Your task to perform on an android device: install app "Yahoo Mail" Image 0: 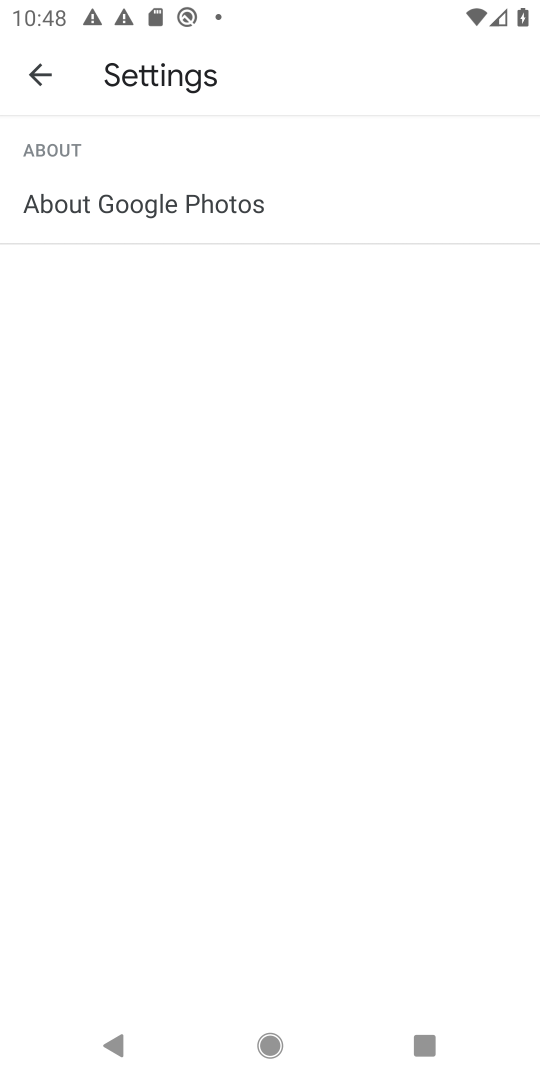
Step 0: press home button
Your task to perform on an android device: install app "Yahoo Mail" Image 1: 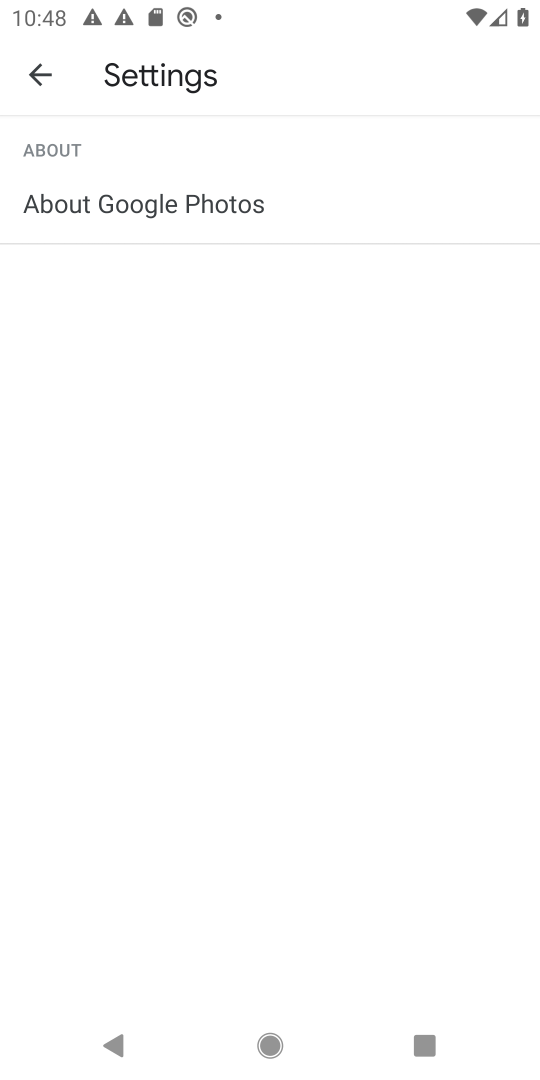
Step 1: press home button
Your task to perform on an android device: install app "Yahoo Mail" Image 2: 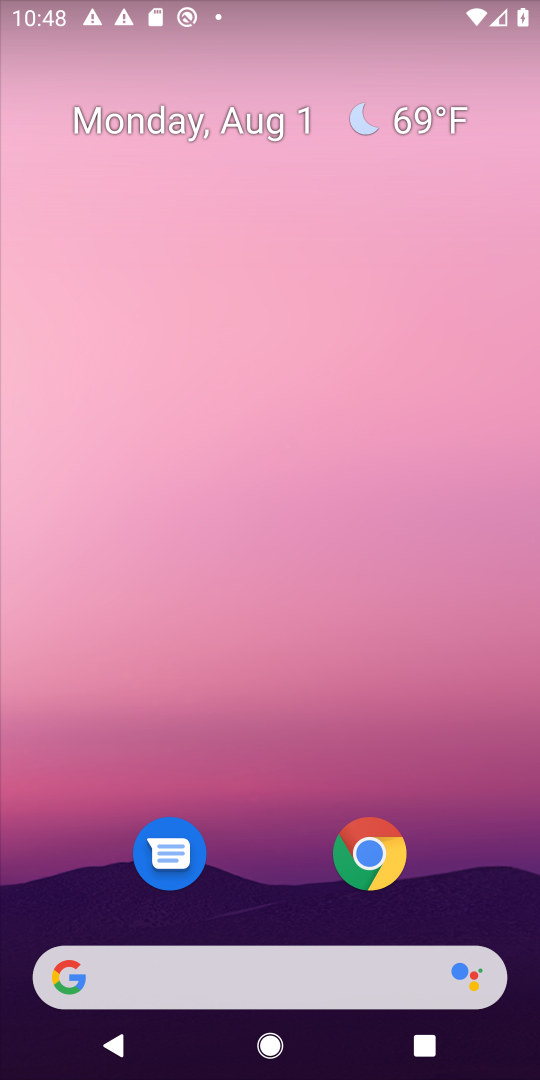
Step 2: drag from (225, 919) to (231, 408)
Your task to perform on an android device: install app "Yahoo Mail" Image 3: 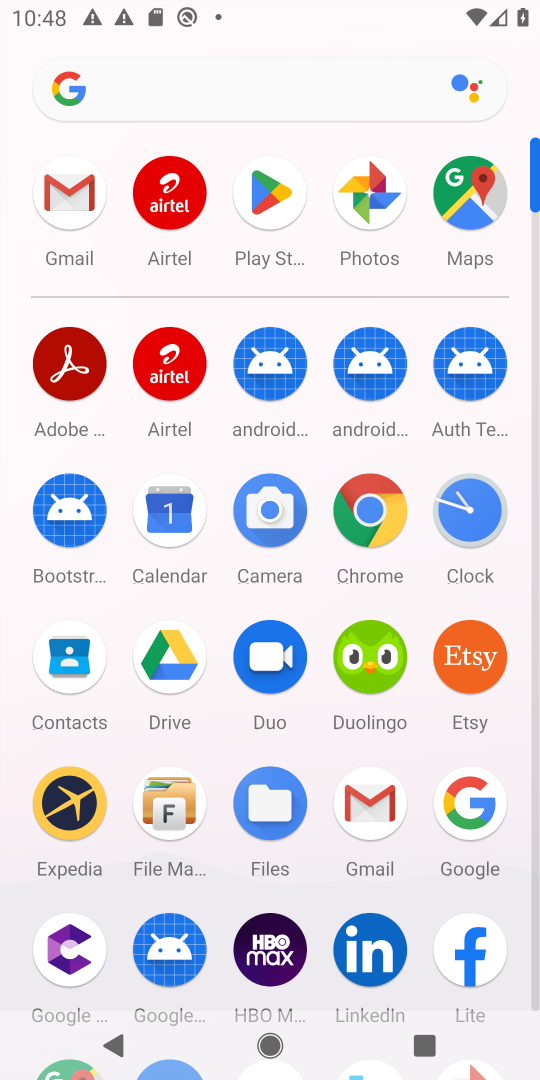
Step 3: click (298, 209)
Your task to perform on an android device: install app "Yahoo Mail" Image 4: 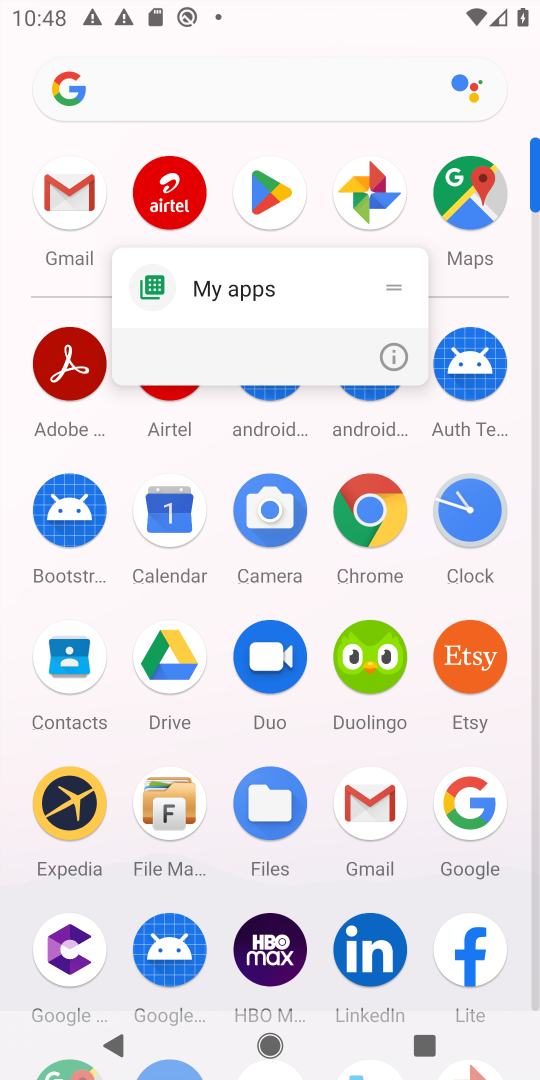
Step 4: click (386, 357)
Your task to perform on an android device: install app "Yahoo Mail" Image 5: 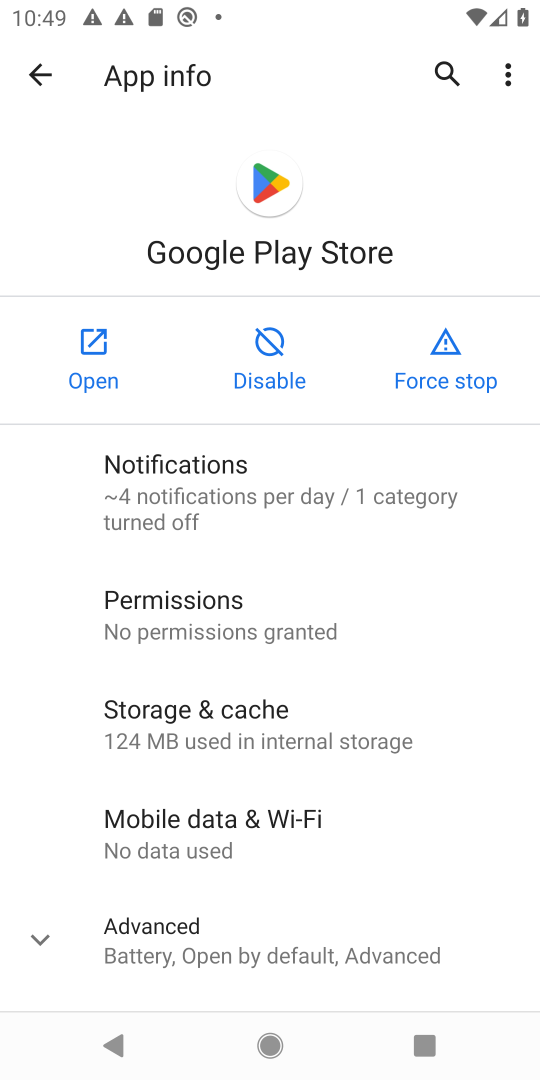
Step 5: click (105, 355)
Your task to perform on an android device: install app "Yahoo Mail" Image 6: 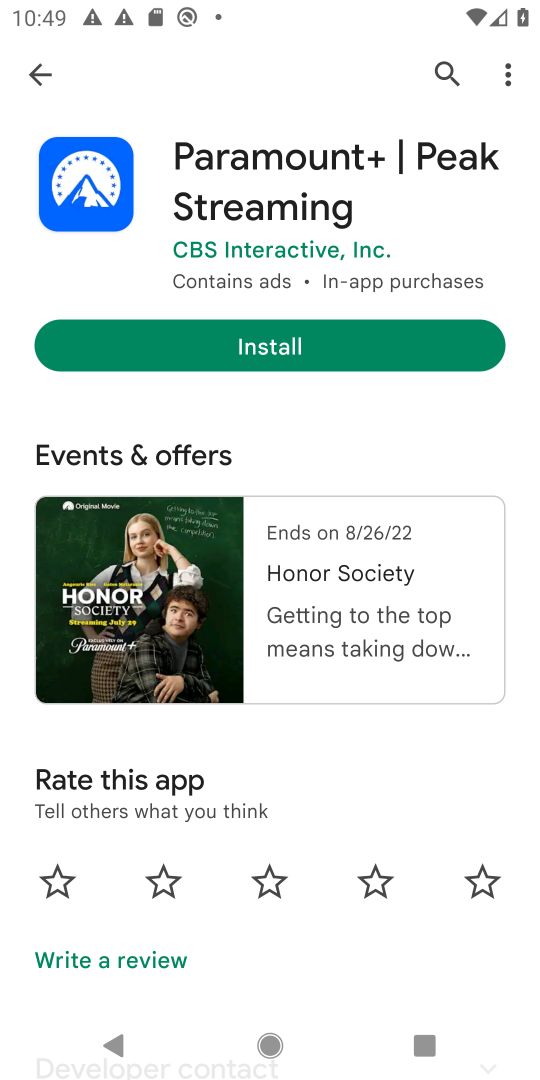
Step 6: click (446, 69)
Your task to perform on an android device: install app "Yahoo Mail" Image 7: 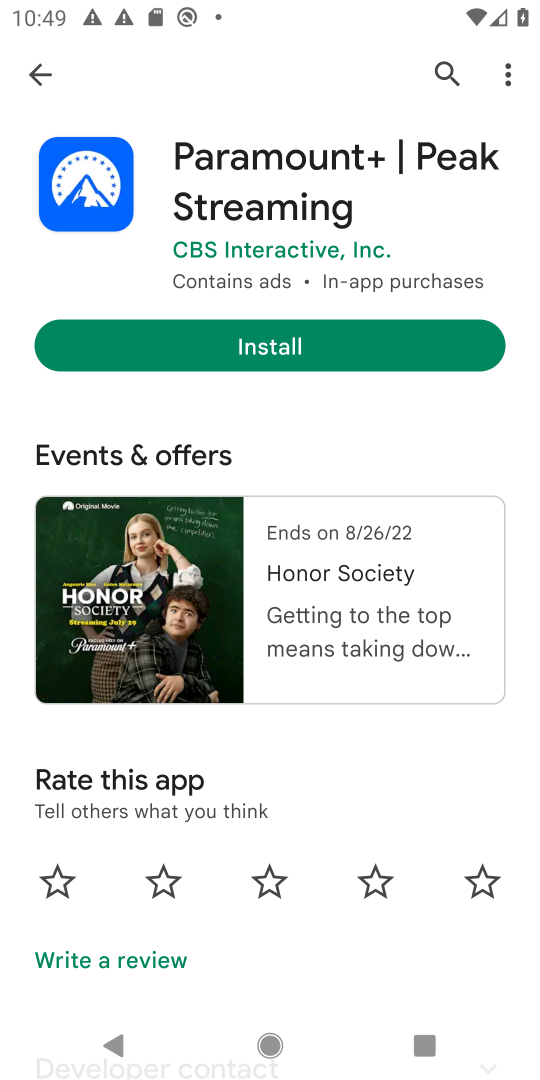
Step 7: click (447, 79)
Your task to perform on an android device: install app "Yahoo Mail" Image 8: 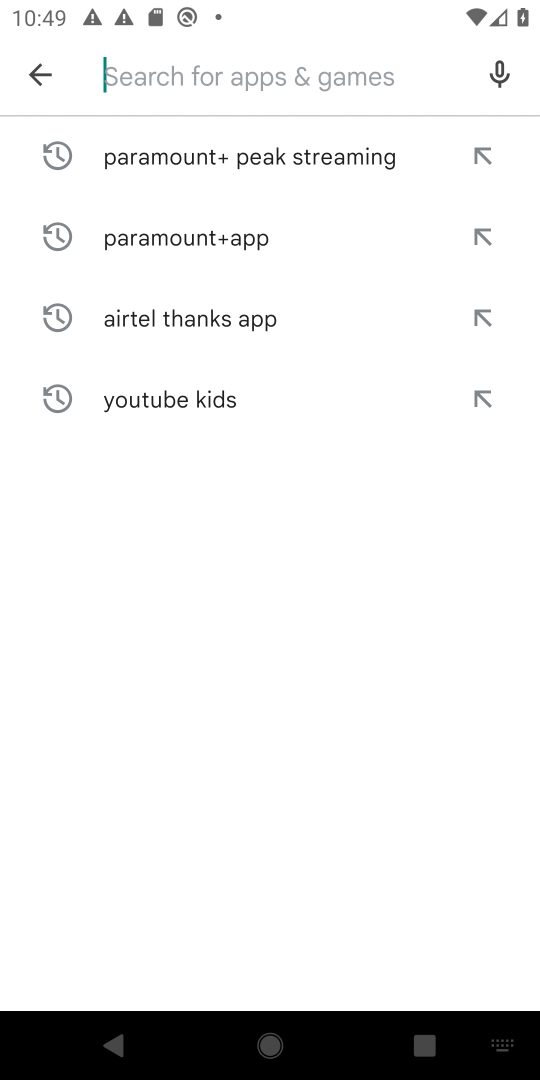
Step 8: type "Yahoo Mail"
Your task to perform on an android device: install app "Yahoo Mail" Image 9: 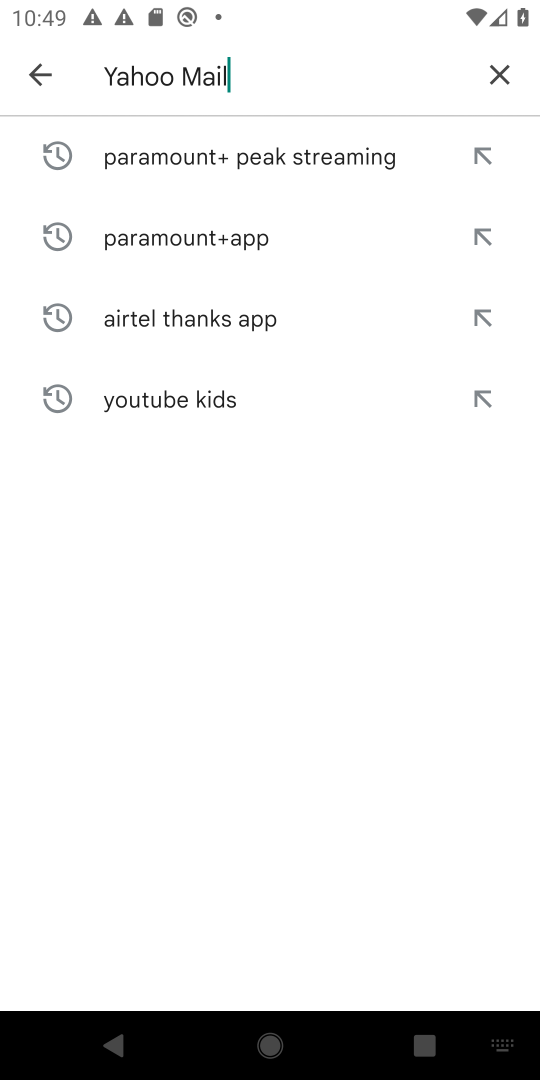
Step 9: type ""
Your task to perform on an android device: install app "Yahoo Mail" Image 10: 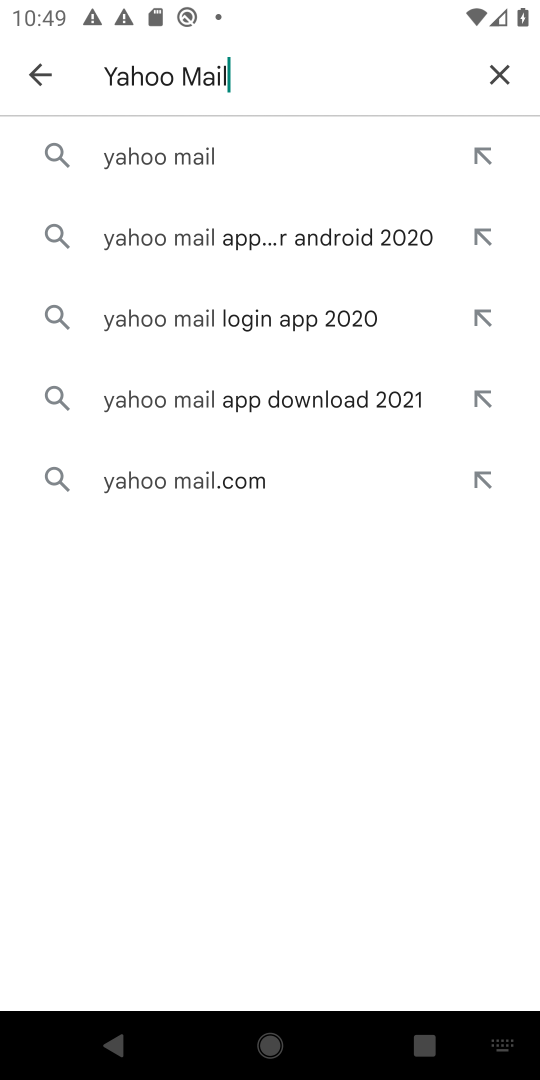
Step 10: click (165, 153)
Your task to perform on an android device: install app "Yahoo Mail" Image 11: 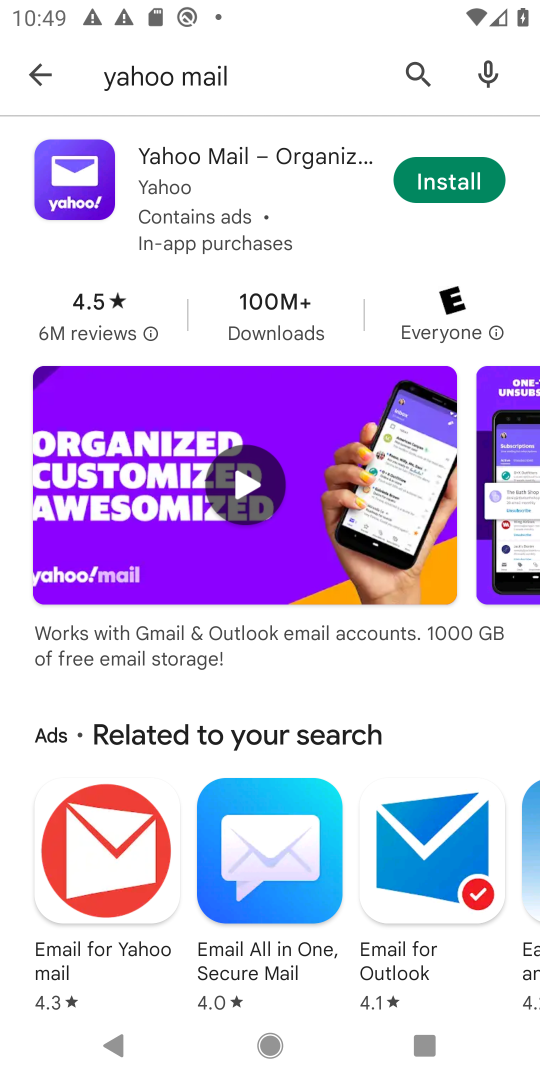
Step 11: click (158, 162)
Your task to perform on an android device: install app "Yahoo Mail" Image 12: 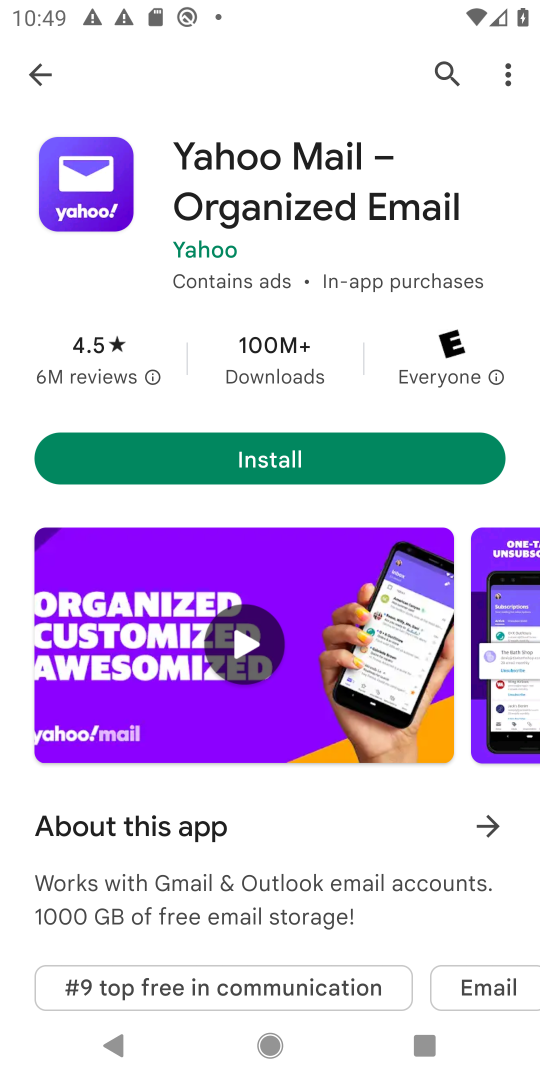
Step 12: drag from (360, 555) to (385, 343)
Your task to perform on an android device: install app "Yahoo Mail" Image 13: 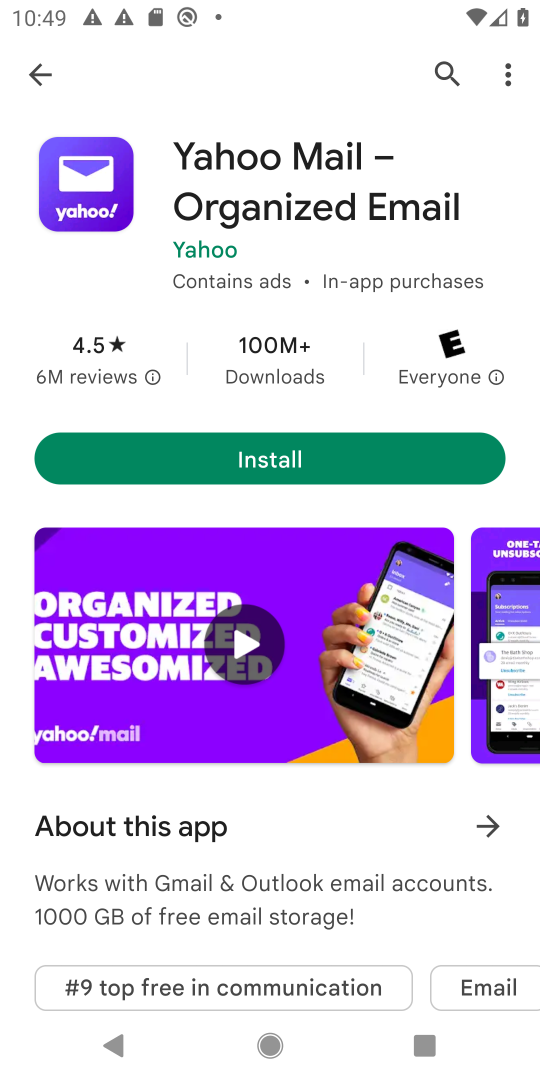
Step 13: drag from (385, 321) to (432, 1036)
Your task to perform on an android device: install app "Yahoo Mail" Image 14: 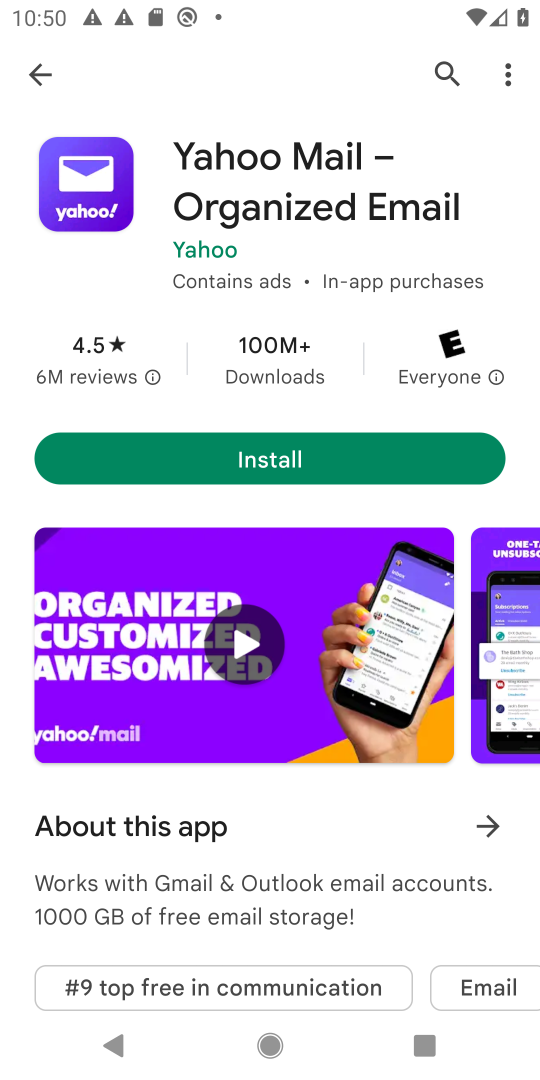
Step 14: drag from (261, 902) to (368, 207)
Your task to perform on an android device: install app "Yahoo Mail" Image 15: 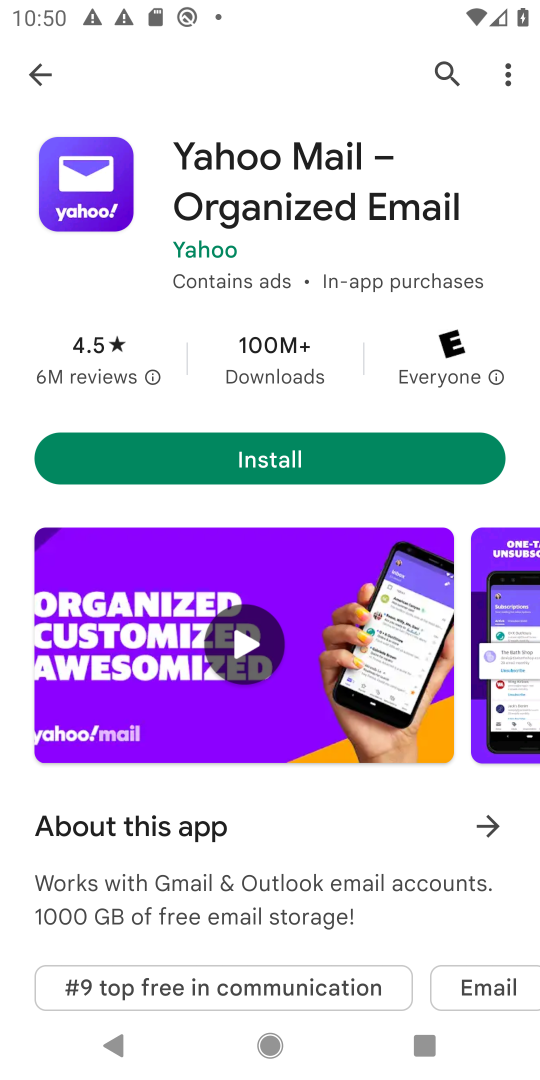
Step 15: drag from (332, 284) to (396, 1065)
Your task to perform on an android device: install app "Yahoo Mail" Image 16: 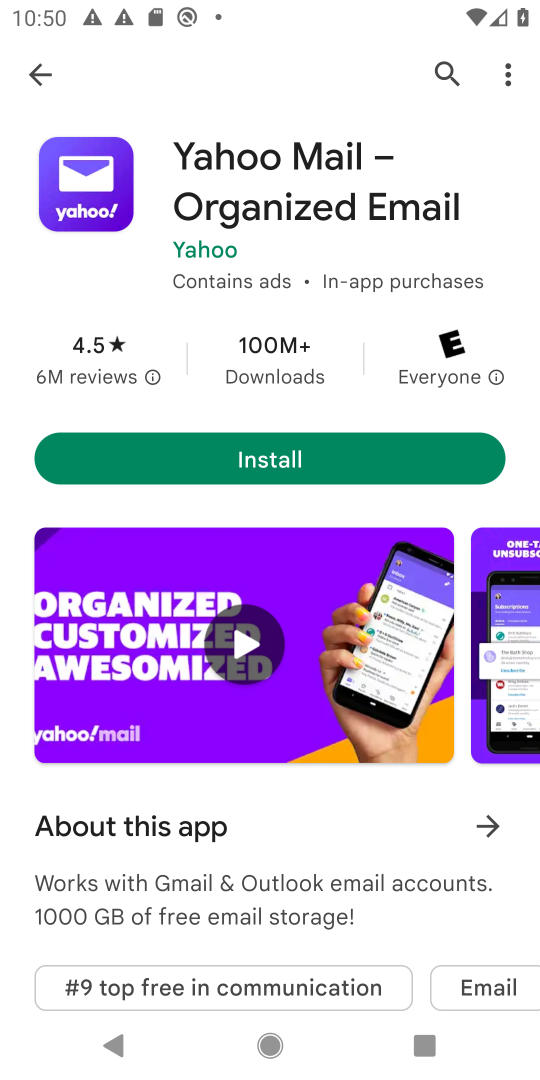
Step 16: click (162, 465)
Your task to perform on an android device: install app "Yahoo Mail" Image 17: 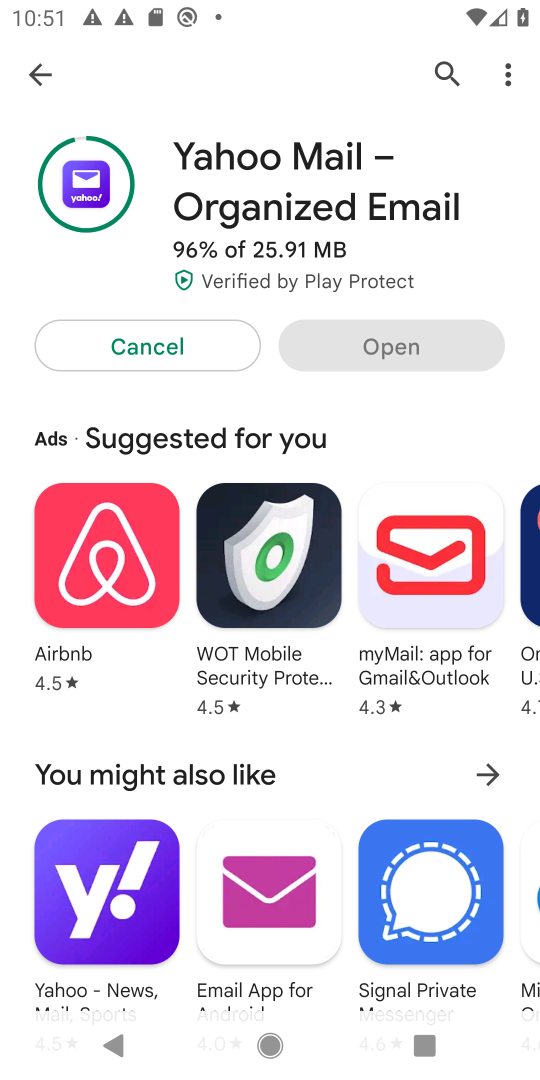
Step 17: drag from (292, 834) to (374, 1026)
Your task to perform on an android device: install app "Yahoo Mail" Image 18: 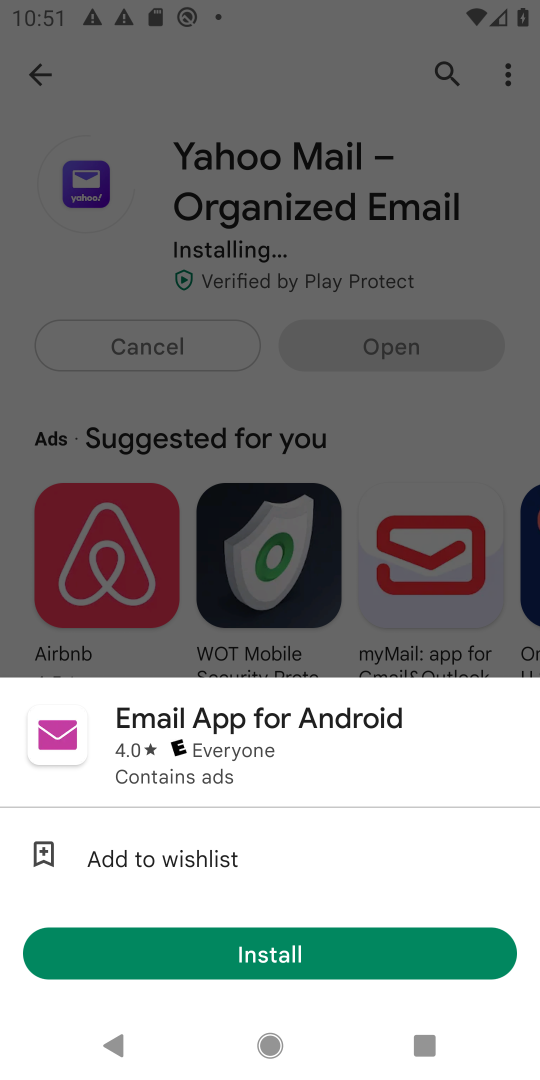
Step 18: drag from (419, 184) to (491, 1059)
Your task to perform on an android device: install app "Yahoo Mail" Image 19: 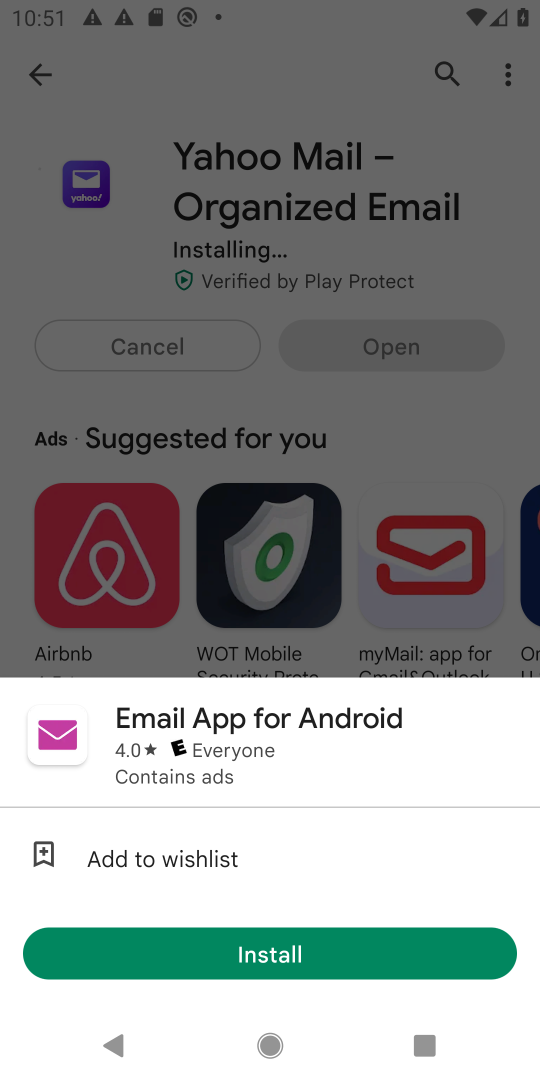
Step 19: click (404, 201)
Your task to perform on an android device: install app "Yahoo Mail" Image 20: 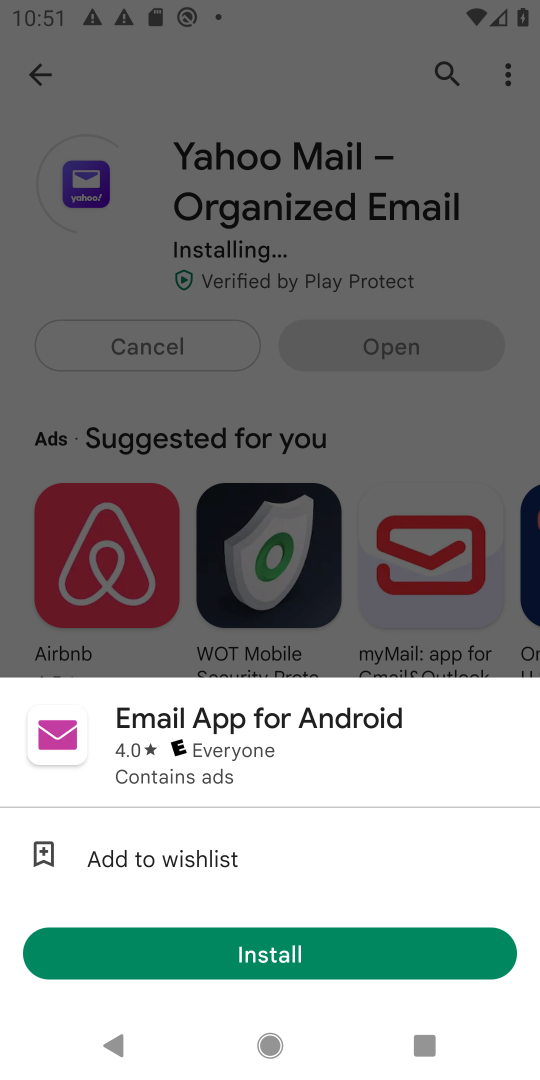
Step 20: task complete